Your task to perform on an android device: Go to display settings Image 0: 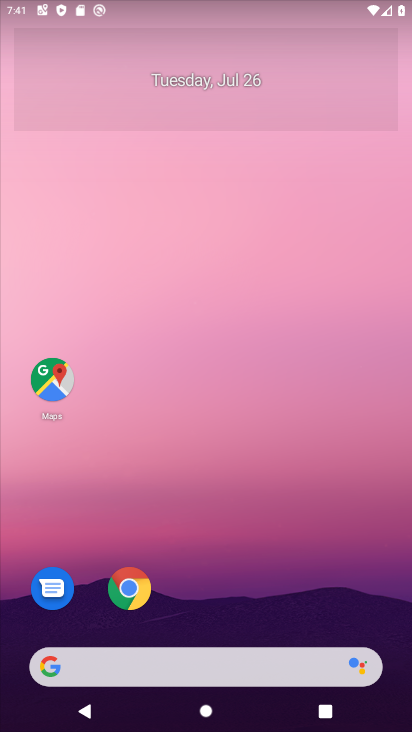
Step 0: drag from (283, 580) to (309, 83)
Your task to perform on an android device: Go to display settings Image 1: 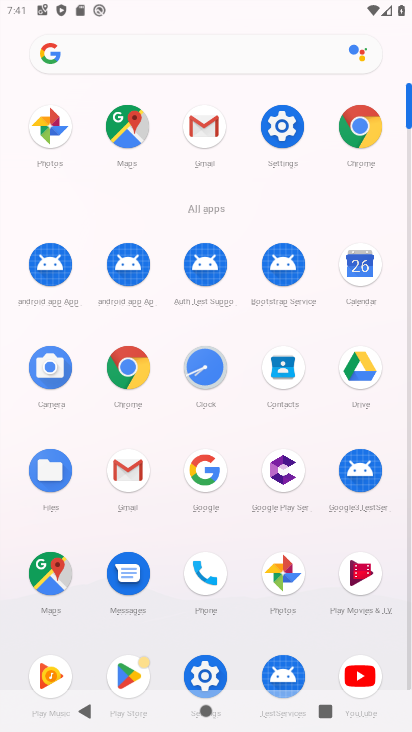
Step 1: click (283, 128)
Your task to perform on an android device: Go to display settings Image 2: 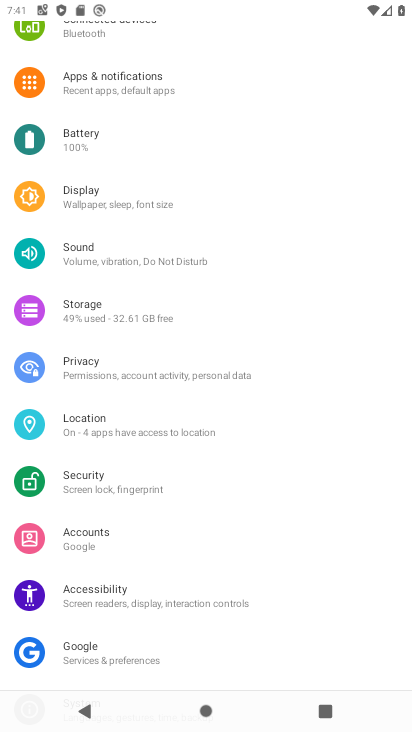
Step 2: click (86, 204)
Your task to perform on an android device: Go to display settings Image 3: 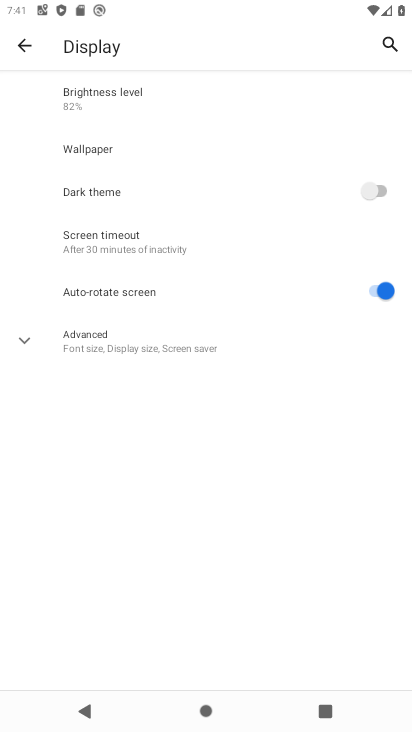
Step 3: task complete